Your task to perform on an android device: Open settings Image 0: 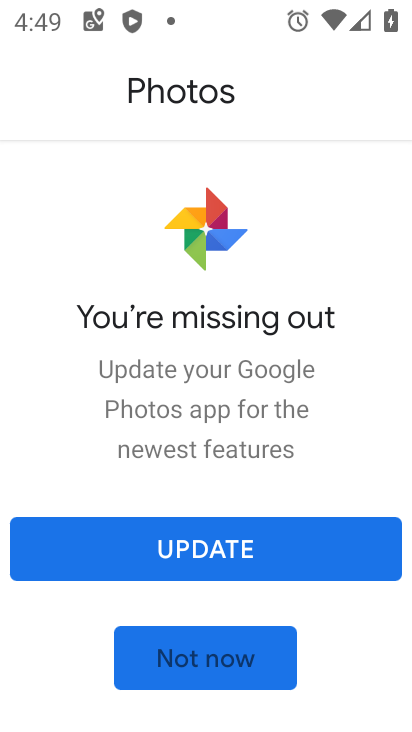
Step 0: press home button
Your task to perform on an android device: Open settings Image 1: 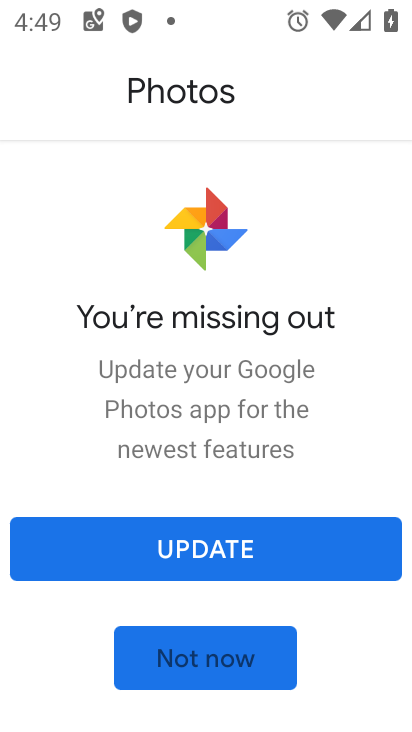
Step 1: press home button
Your task to perform on an android device: Open settings Image 2: 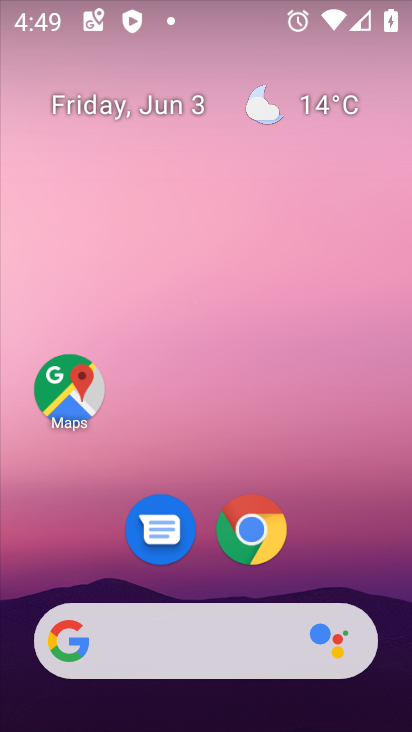
Step 2: drag from (209, 558) to (240, 112)
Your task to perform on an android device: Open settings Image 3: 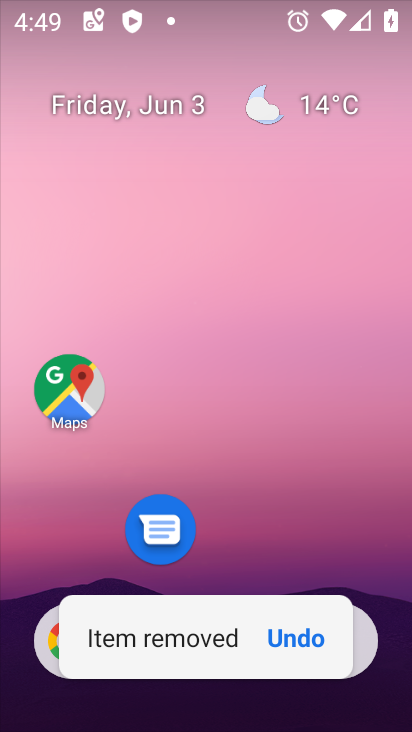
Step 3: click (288, 625)
Your task to perform on an android device: Open settings Image 4: 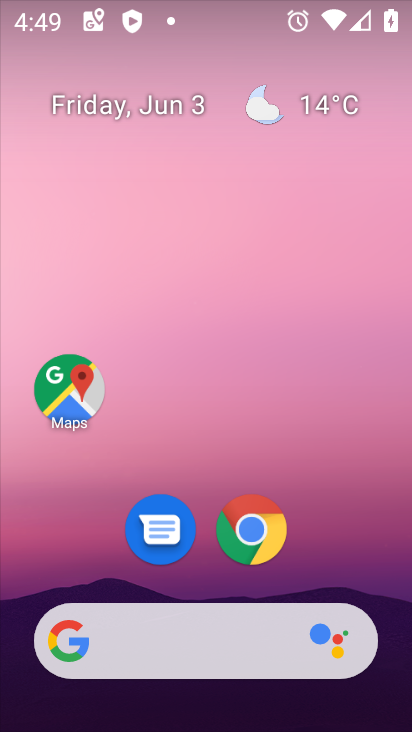
Step 4: drag from (328, 562) to (360, 75)
Your task to perform on an android device: Open settings Image 5: 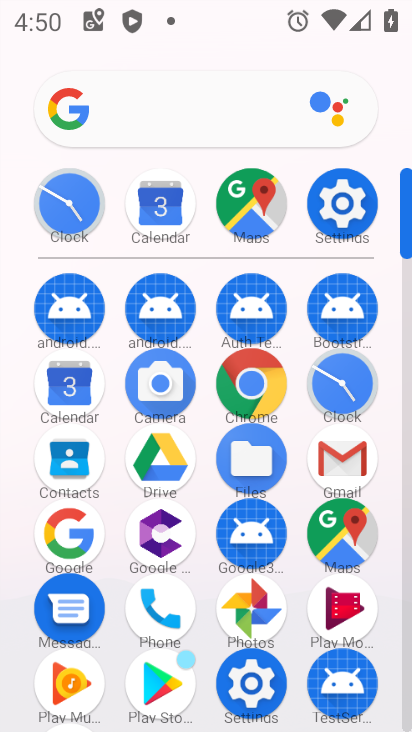
Step 5: click (342, 194)
Your task to perform on an android device: Open settings Image 6: 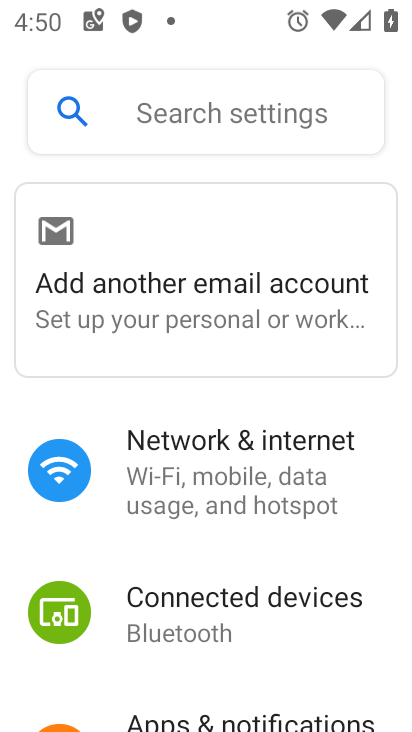
Step 6: task complete